Your task to perform on an android device: What is the recent news? Image 0: 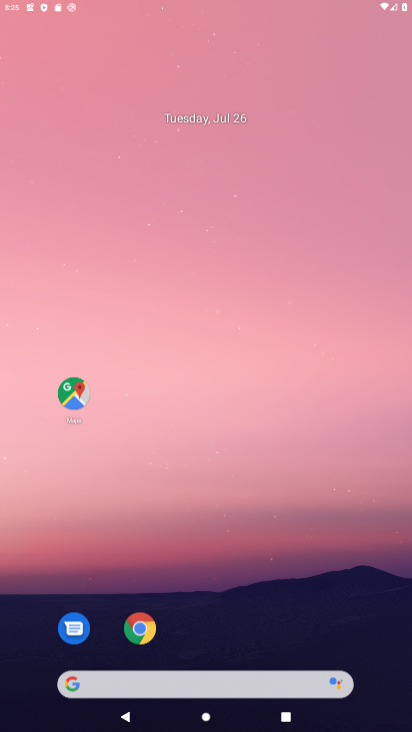
Step 0: press home button
Your task to perform on an android device: What is the recent news? Image 1: 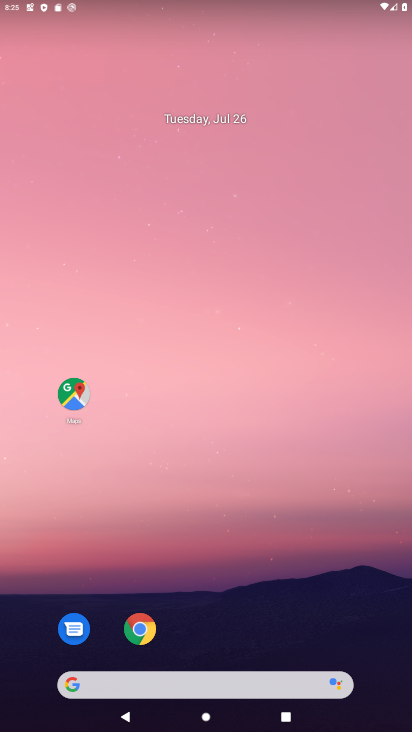
Step 1: task complete